Your task to perform on an android device: open app "Messenger Lite" Image 0: 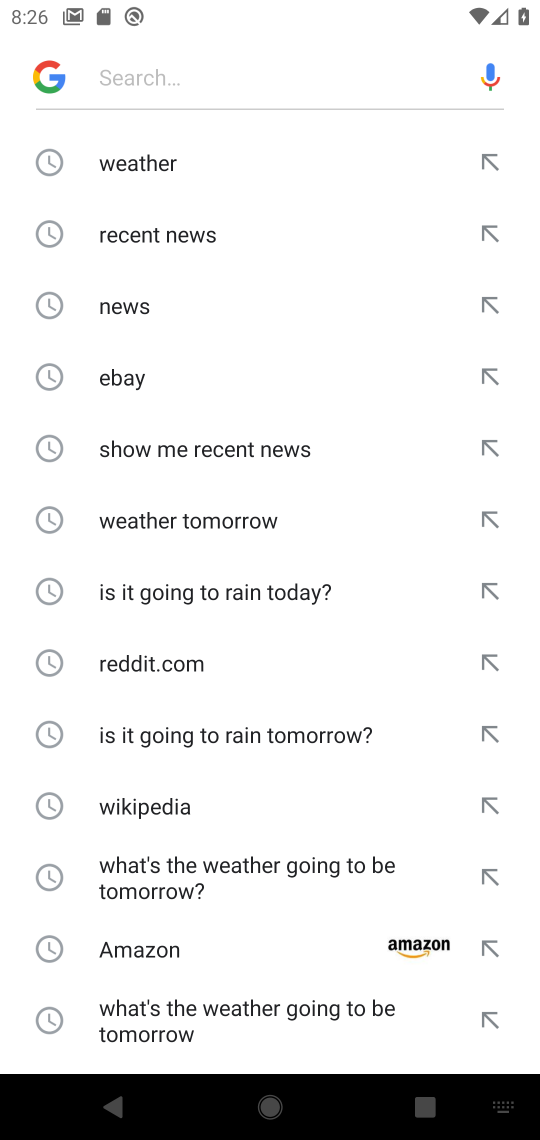
Step 0: press back button
Your task to perform on an android device: open app "Messenger Lite" Image 1: 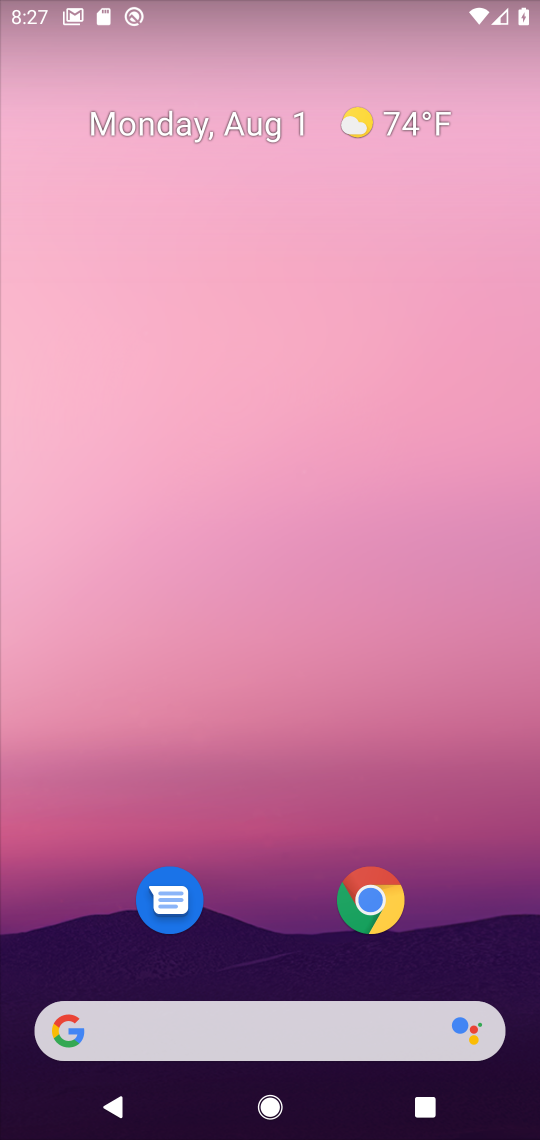
Step 1: drag from (293, 1000) to (534, 16)
Your task to perform on an android device: open app "Messenger Lite" Image 2: 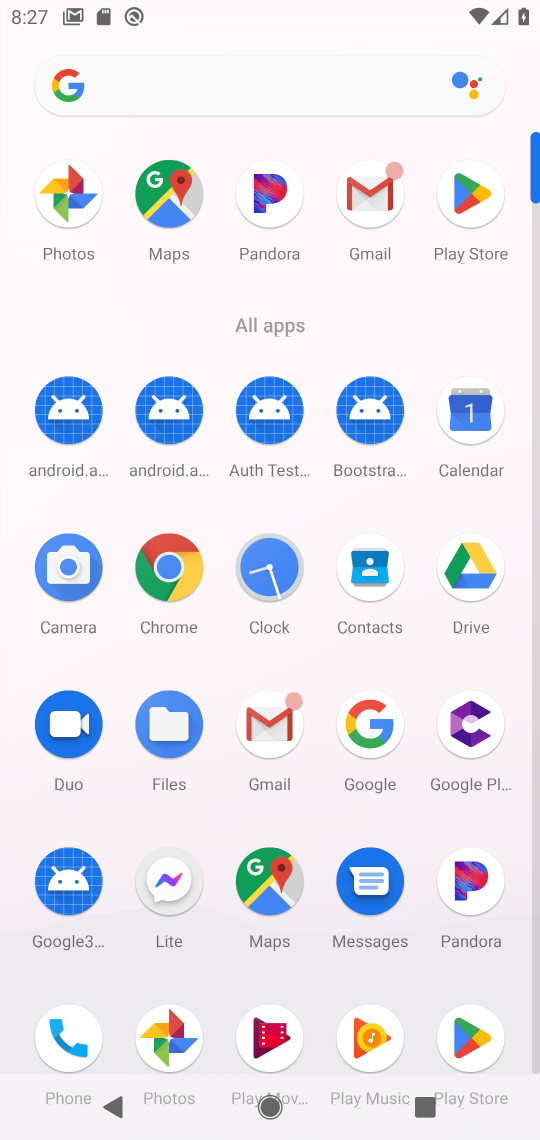
Step 2: click (169, 873)
Your task to perform on an android device: open app "Messenger Lite" Image 3: 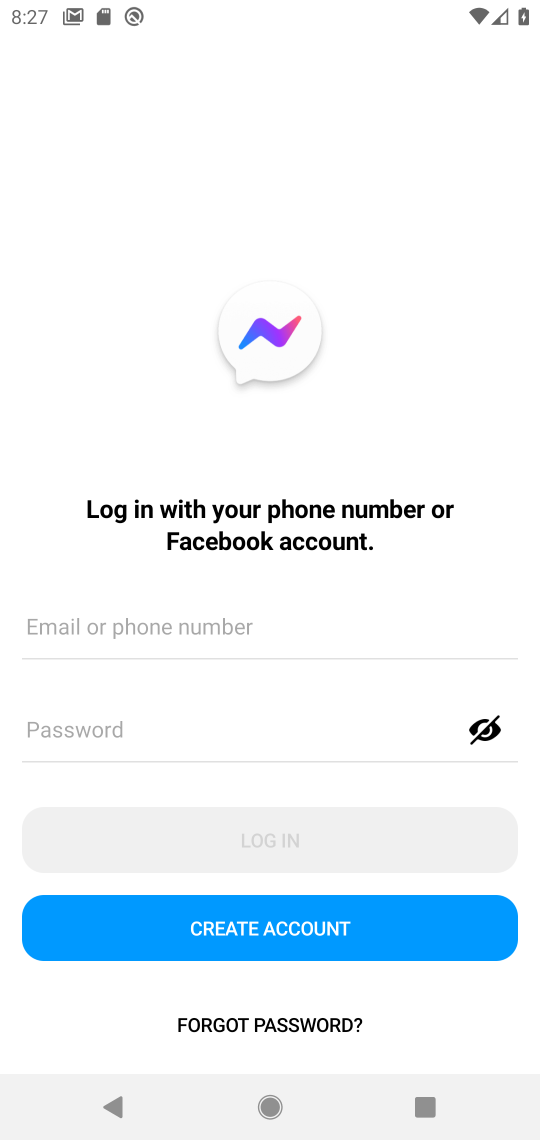
Step 3: task complete